Your task to perform on an android device: change the upload size in google photos Image 0: 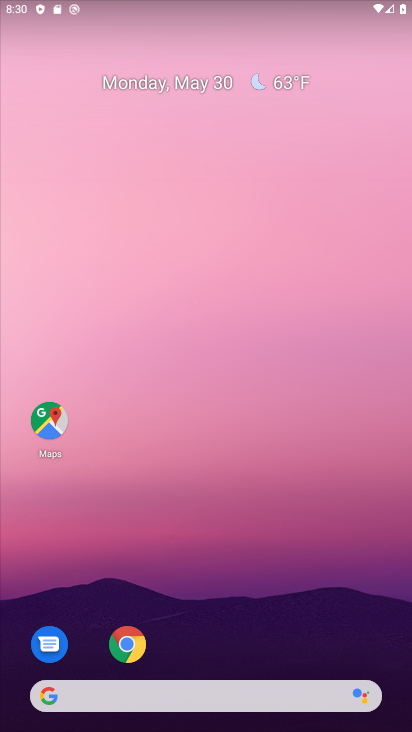
Step 0: drag from (212, 646) to (215, 207)
Your task to perform on an android device: change the upload size in google photos Image 1: 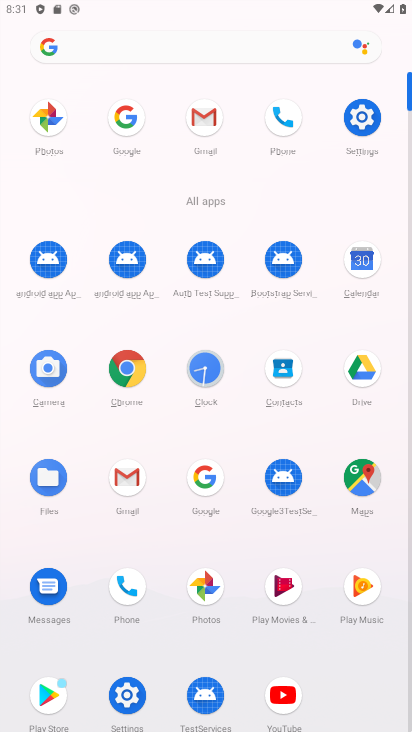
Step 1: click (46, 118)
Your task to perform on an android device: change the upload size in google photos Image 2: 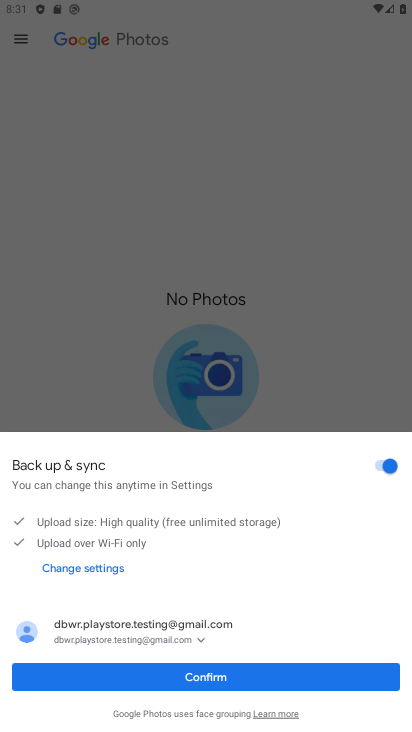
Step 2: click (239, 676)
Your task to perform on an android device: change the upload size in google photos Image 3: 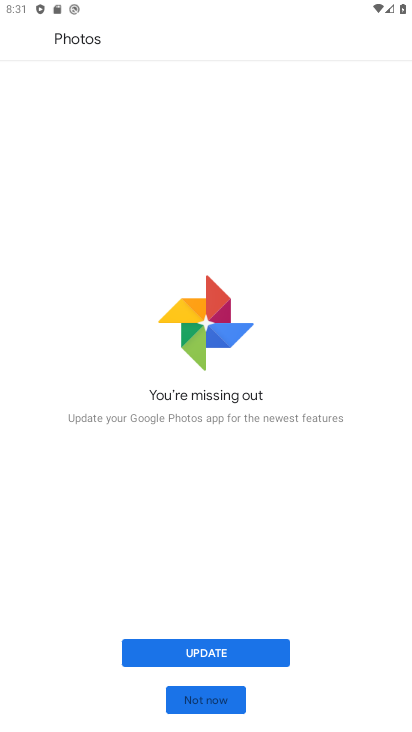
Step 3: click (199, 652)
Your task to perform on an android device: change the upload size in google photos Image 4: 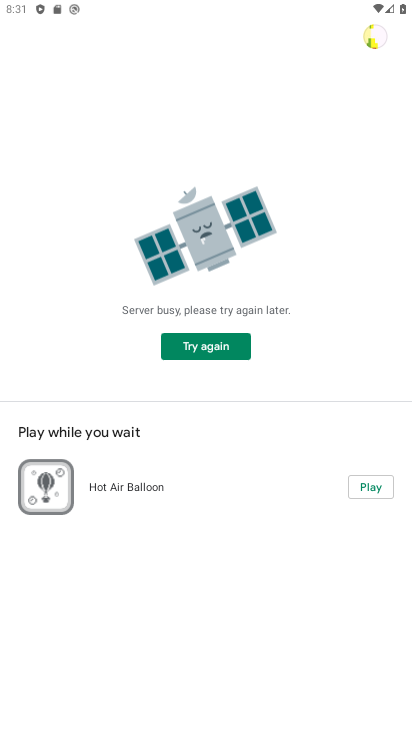
Step 4: task complete